Your task to perform on an android device: move an email to a new category in the gmail app Image 0: 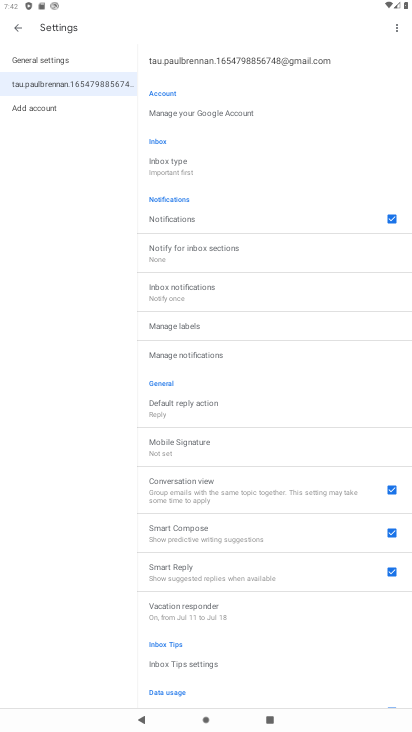
Step 0: press home button
Your task to perform on an android device: move an email to a new category in the gmail app Image 1: 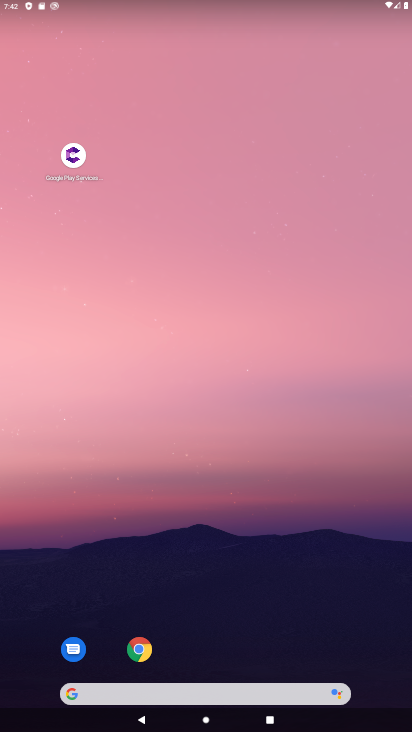
Step 1: drag from (380, 672) to (338, 239)
Your task to perform on an android device: move an email to a new category in the gmail app Image 2: 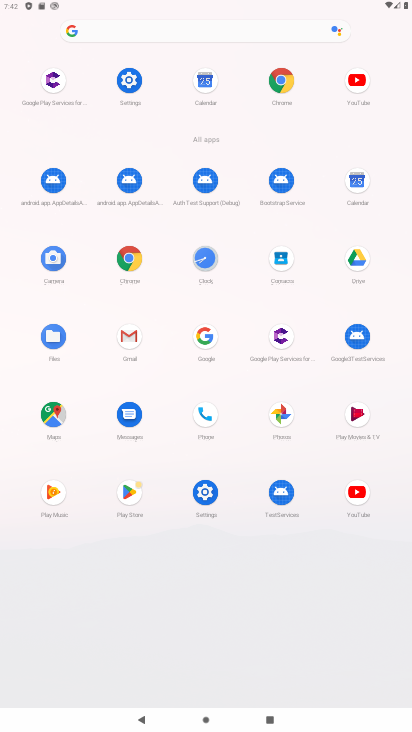
Step 2: click (126, 335)
Your task to perform on an android device: move an email to a new category in the gmail app Image 3: 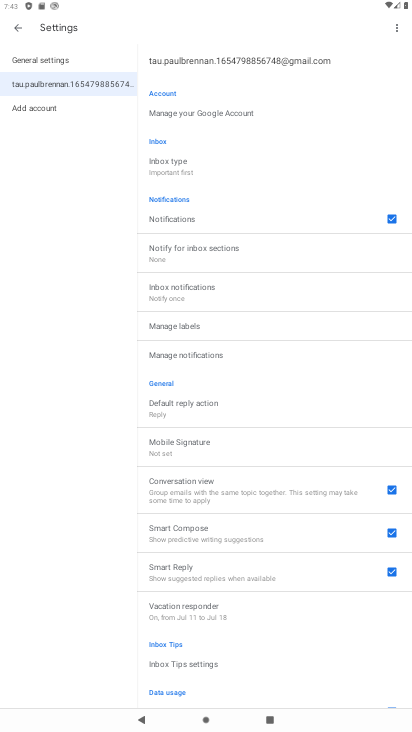
Step 3: press back button
Your task to perform on an android device: move an email to a new category in the gmail app Image 4: 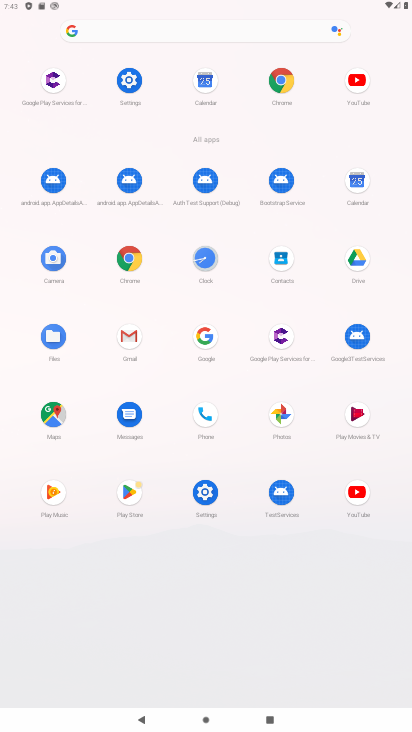
Step 4: click (129, 337)
Your task to perform on an android device: move an email to a new category in the gmail app Image 5: 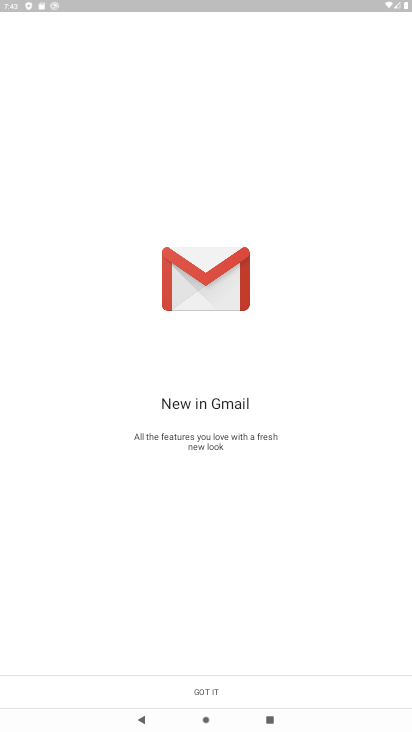
Step 5: click (205, 687)
Your task to perform on an android device: move an email to a new category in the gmail app Image 6: 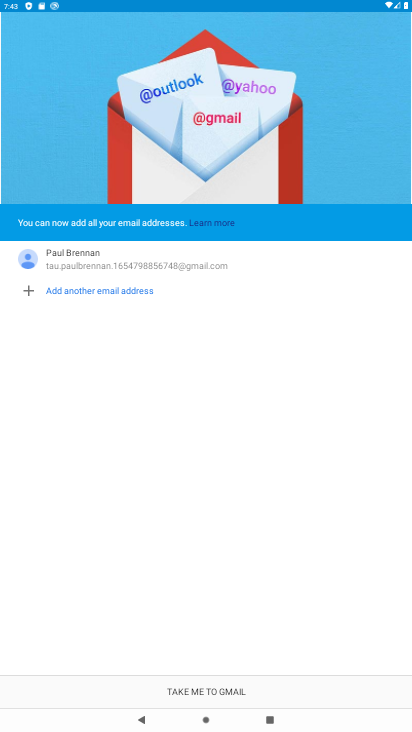
Step 6: click (220, 688)
Your task to perform on an android device: move an email to a new category in the gmail app Image 7: 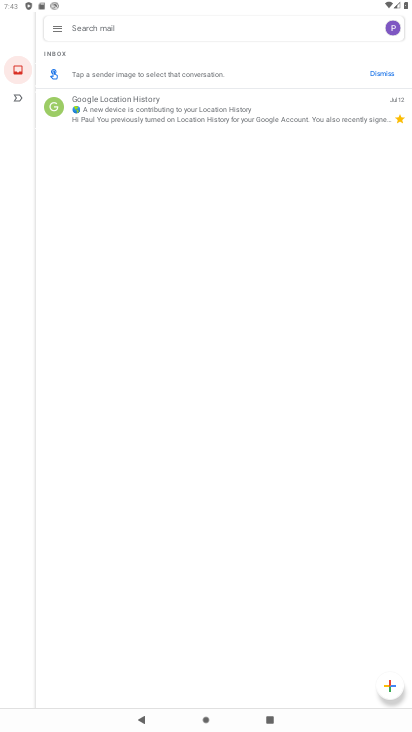
Step 7: click (186, 106)
Your task to perform on an android device: move an email to a new category in the gmail app Image 8: 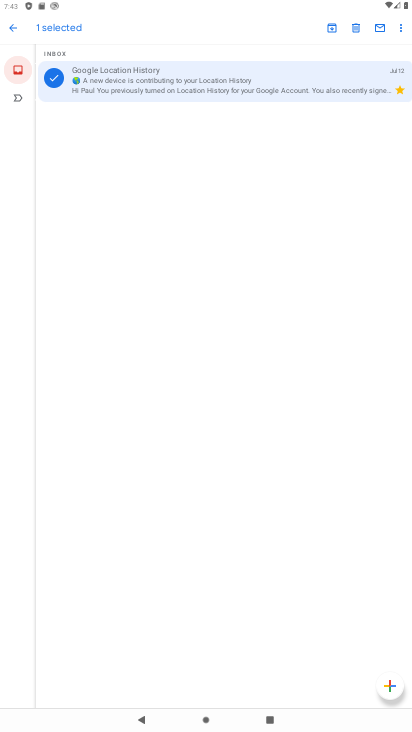
Step 8: click (402, 33)
Your task to perform on an android device: move an email to a new category in the gmail app Image 9: 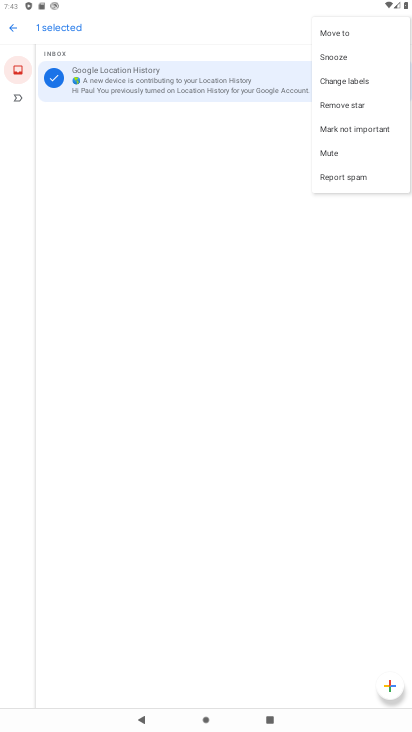
Step 9: click (333, 36)
Your task to perform on an android device: move an email to a new category in the gmail app Image 10: 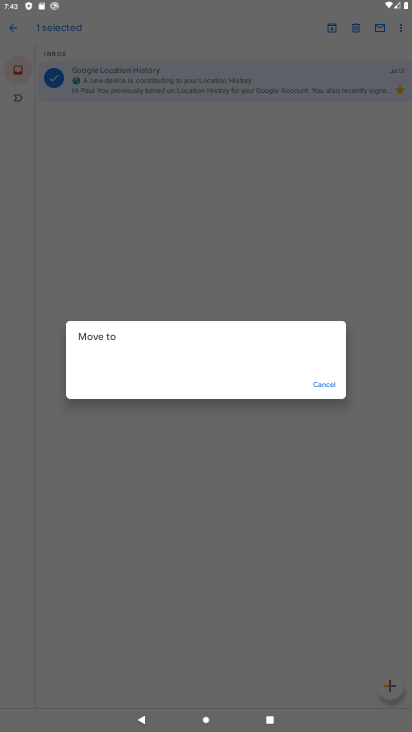
Step 10: task complete